Your task to perform on an android device: Go to privacy settings Image 0: 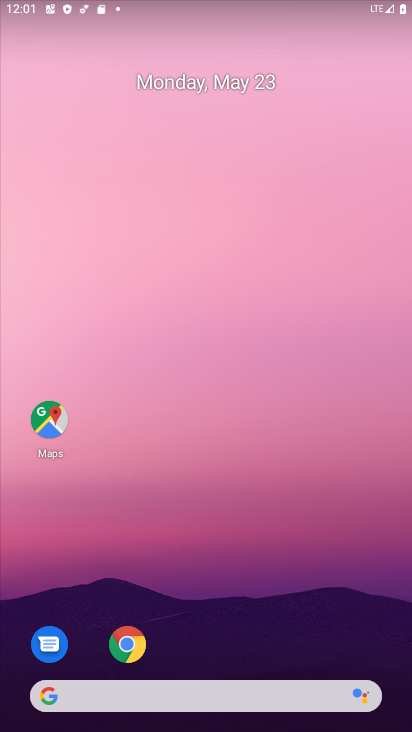
Step 0: drag from (314, 618) to (283, 3)
Your task to perform on an android device: Go to privacy settings Image 1: 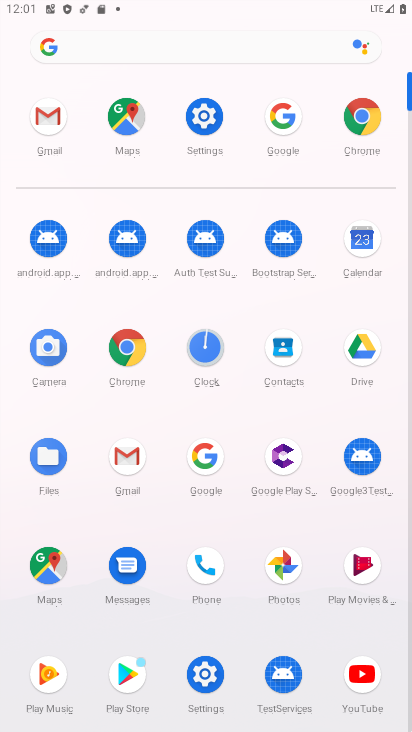
Step 1: click (195, 131)
Your task to perform on an android device: Go to privacy settings Image 2: 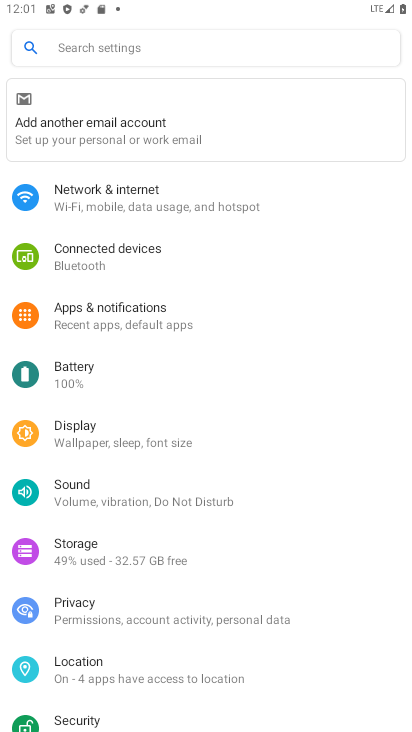
Step 2: click (127, 619)
Your task to perform on an android device: Go to privacy settings Image 3: 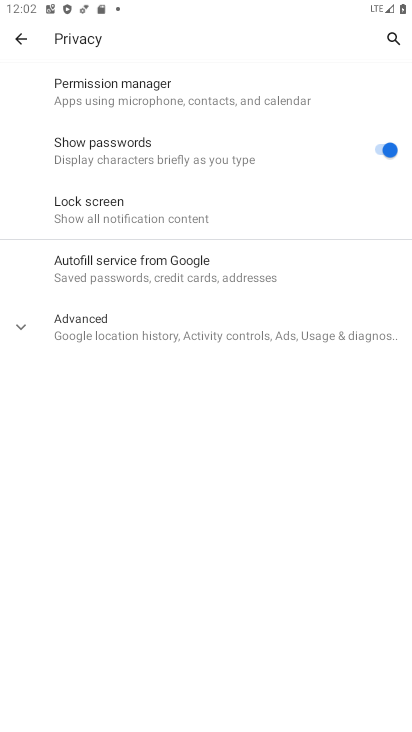
Step 3: task complete